Your task to perform on an android device: set an alarm Image 0: 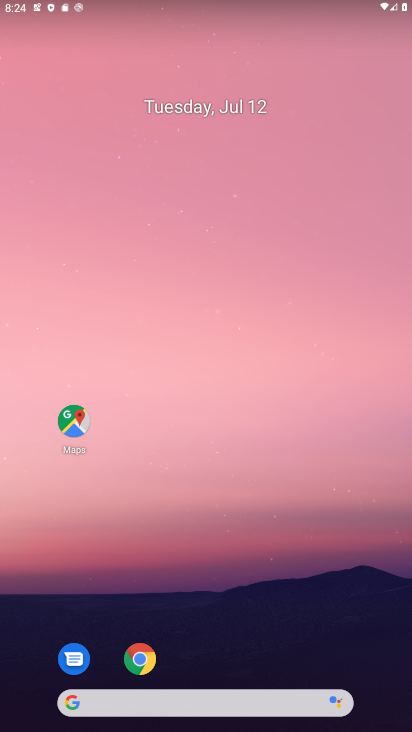
Step 0: click (326, 52)
Your task to perform on an android device: set an alarm Image 1: 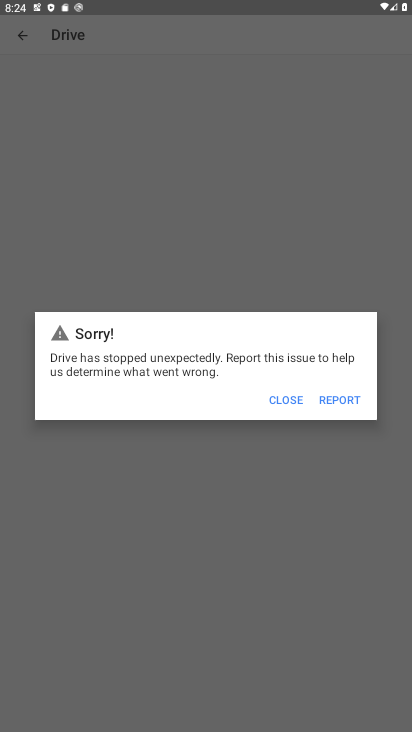
Step 1: press home button
Your task to perform on an android device: set an alarm Image 2: 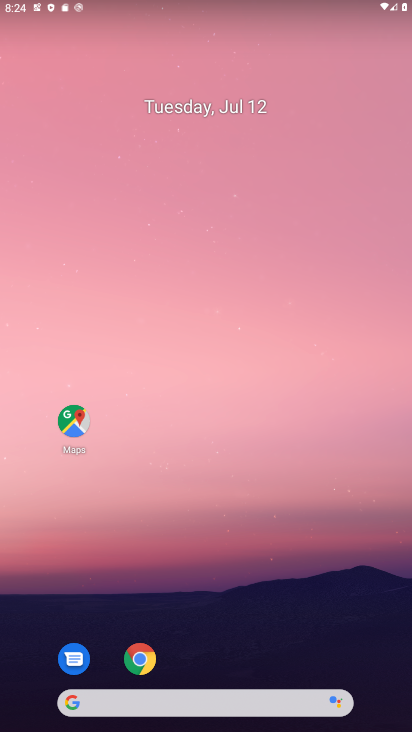
Step 2: drag from (198, 697) to (223, 48)
Your task to perform on an android device: set an alarm Image 3: 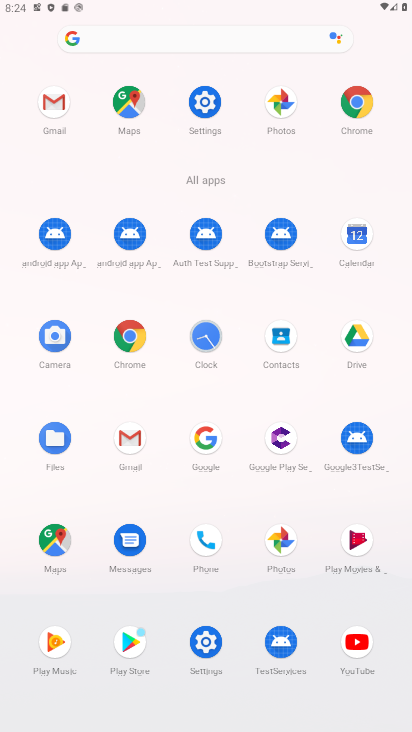
Step 3: click (206, 336)
Your task to perform on an android device: set an alarm Image 4: 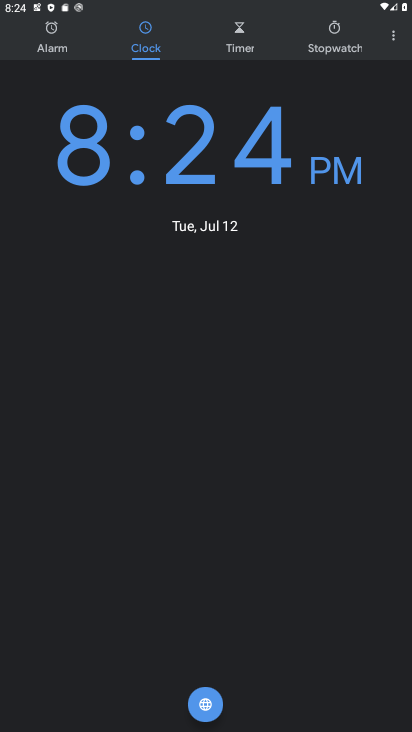
Step 4: click (53, 36)
Your task to perform on an android device: set an alarm Image 5: 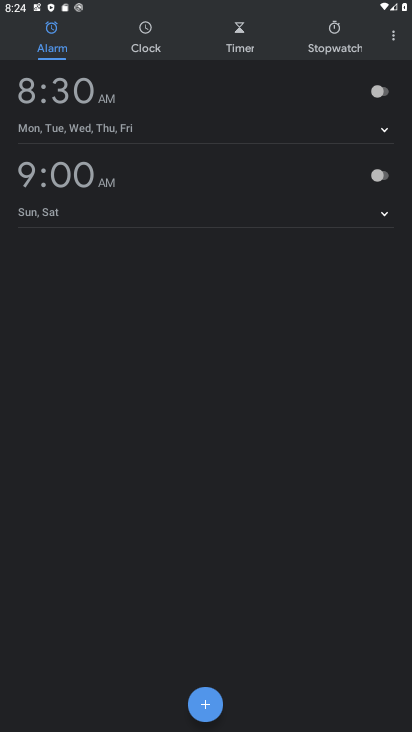
Step 5: click (209, 706)
Your task to perform on an android device: set an alarm Image 6: 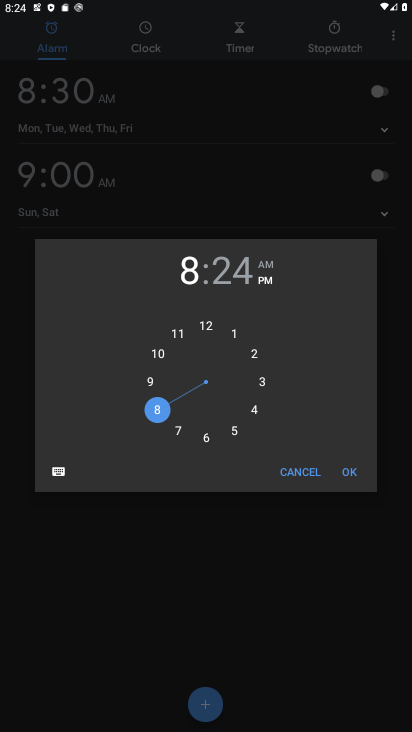
Step 6: click (164, 382)
Your task to perform on an android device: set an alarm Image 7: 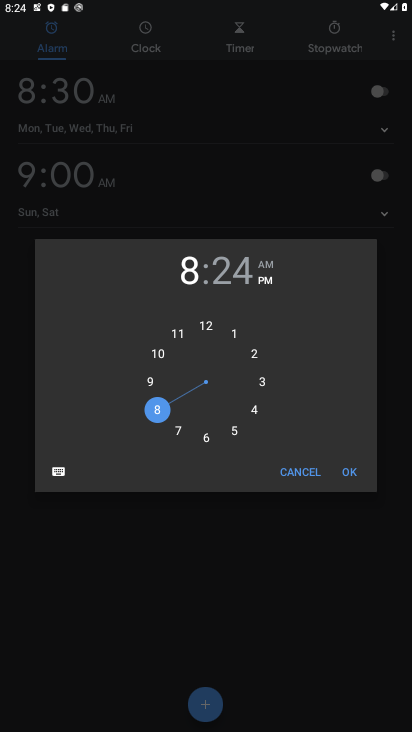
Step 7: click (147, 384)
Your task to perform on an android device: set an alarm Image 8: 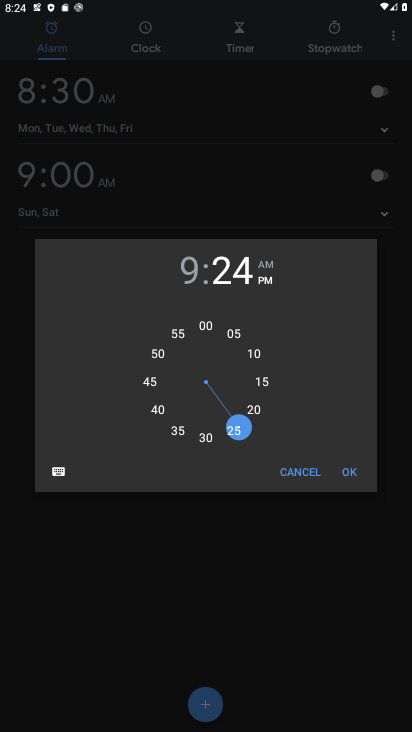
Step 8: click (348, 474)
Your task to perform on an android device: set an alarm Image 9: 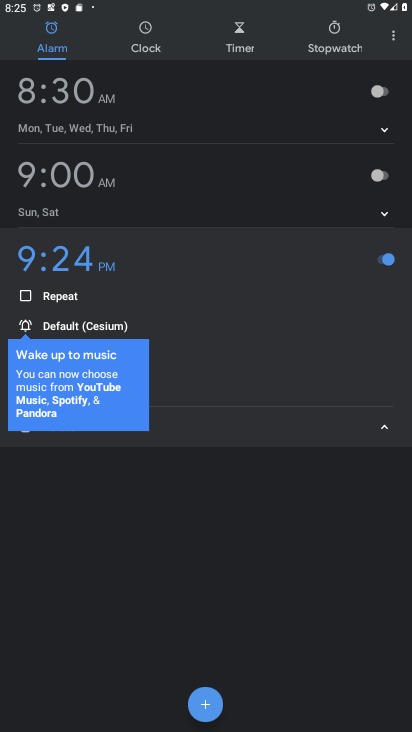
Step 9: click (384, 431)
Your task to perform on an android device: set an alarm Image 10: 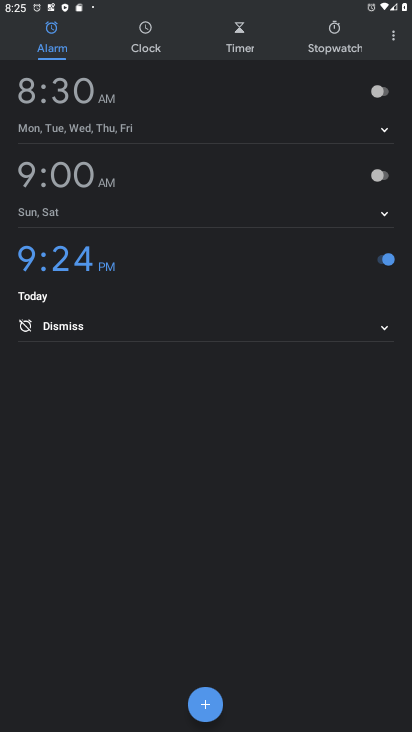
Step 10: task complete